Your task to perform on an android device: Open wifi settings Image 0: 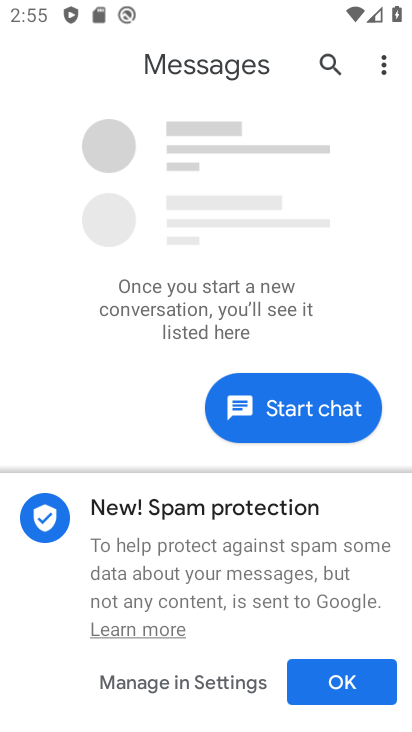
Step 0: press home button
Your task to perform on an android device: Open wifi settings Image 1: 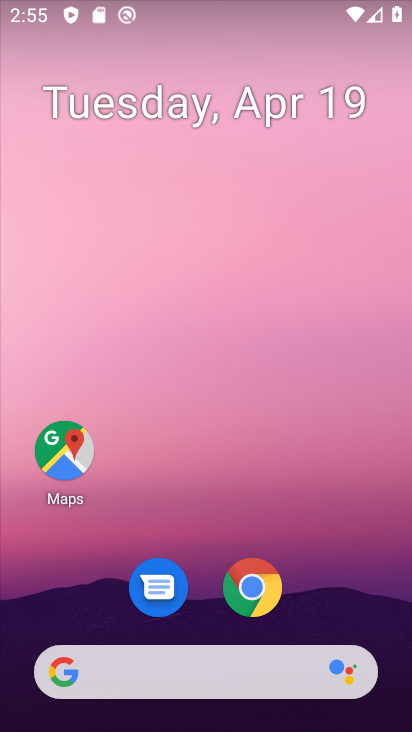
Step 1: drag from (387, 609) to (156, 67)
Your task to perform on an android device: Open wifi settings Image 2: 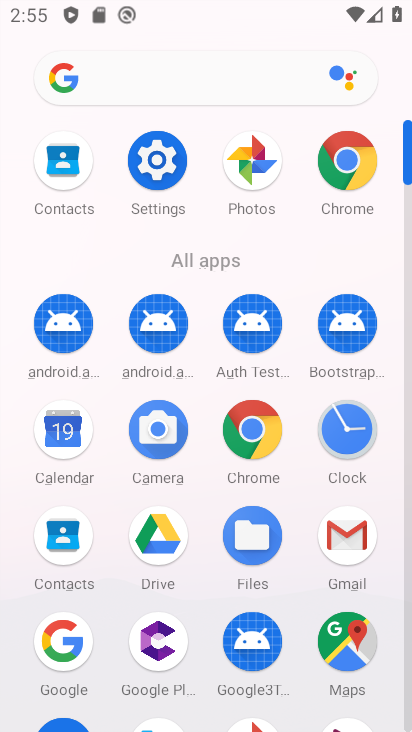
Step 2: click (163, 156)
Your task to perform on an android device: Open wifi settings Image 3: 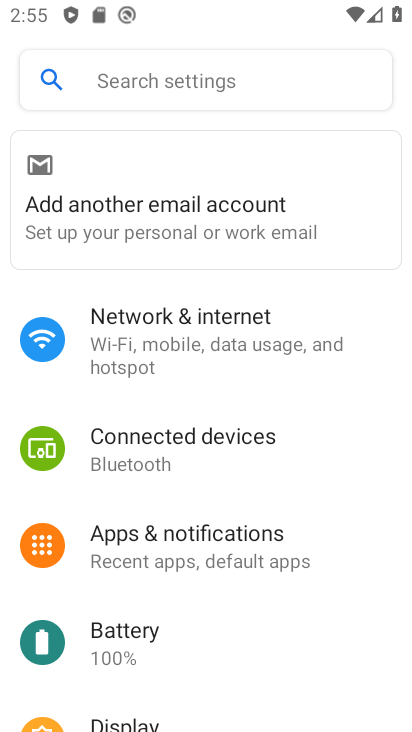
Step 3: click (227, 322)
Your task to perform on an android device: Open wifi settings Image 4: 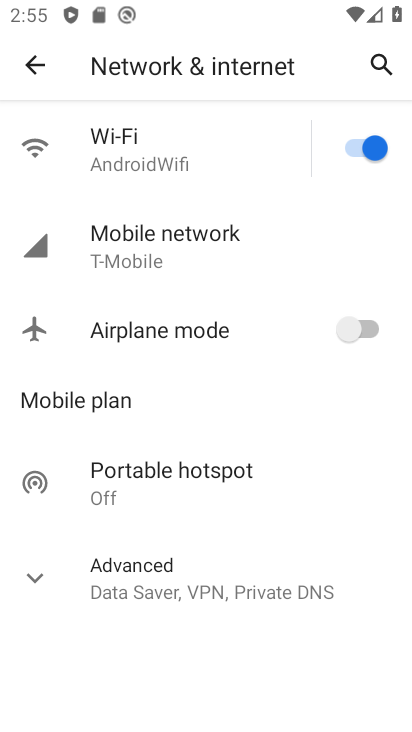
Step 4: click (206, 149)
Your task to perform on an android device: Open wifi settings Image 5: 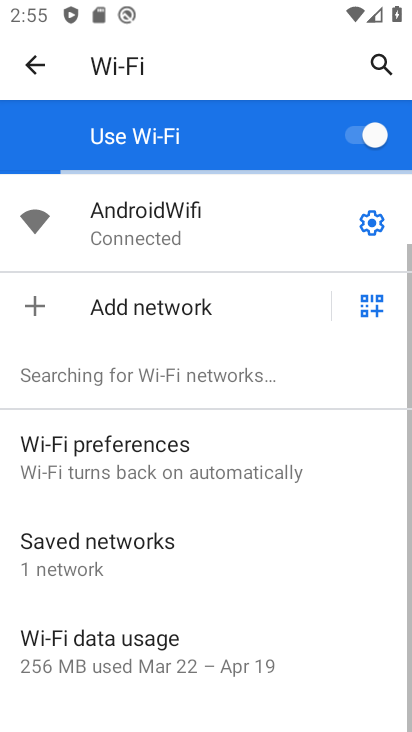
Step 5: task complete